Your task to perform on an android device: turn on the 12-hour format for clock Image 0: 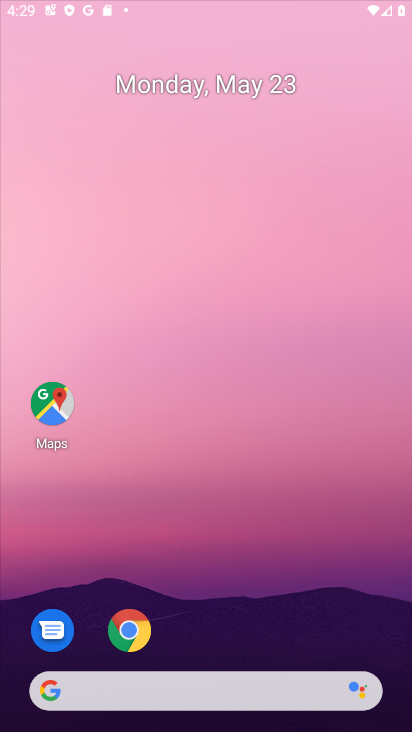
Step 0: press home button
Your task to perform on an android device: turn on the 12-hour format for clock Image 1: 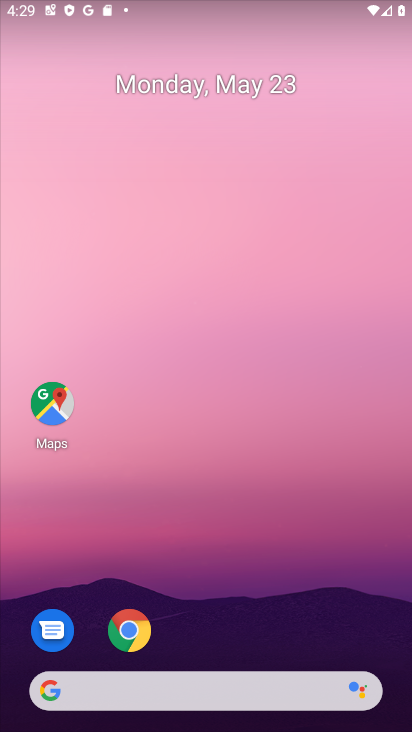
Step 1: drag from (213, 658) to (283, 98)
Your task to perform on an android device: turn on the 12-hour format for clock Image 2: 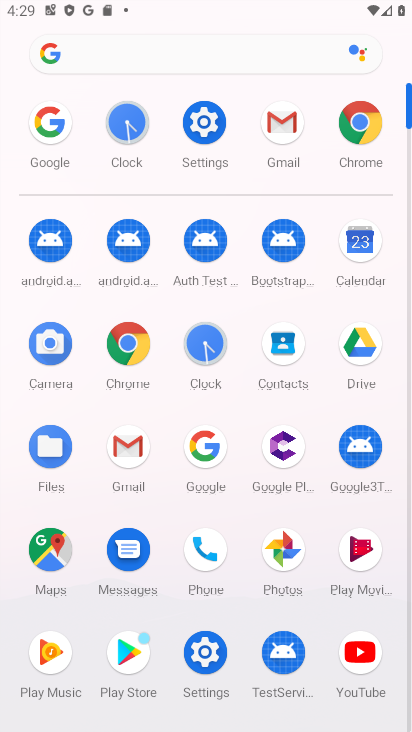
Step 2: click (202, 340)
Your task to perform on an android device: turn on the 12-hour format for clock Image 3: 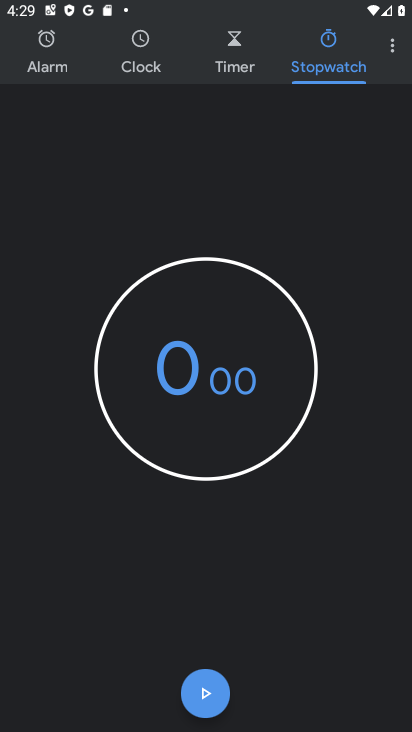
Step 3: click (396, 53)
Your task to perform on an android device: turn on the 12-hour format for clock Image 4: 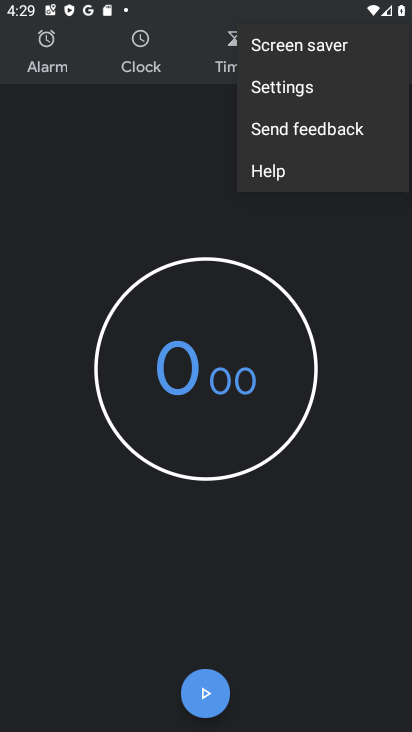
Step 4: click (326, 88)
Your task to perform on an android device: turn on the 12-hour format for clock Image 5: 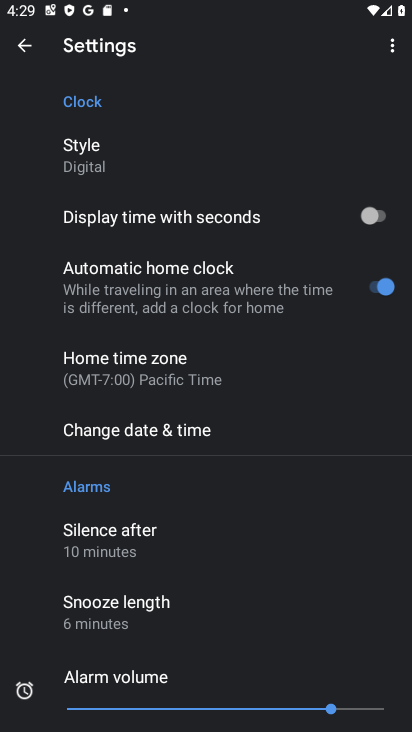
Step 5: click (240, 427)
Your task to perform on an android device: turn on the 12-hour format for clock Image 6: 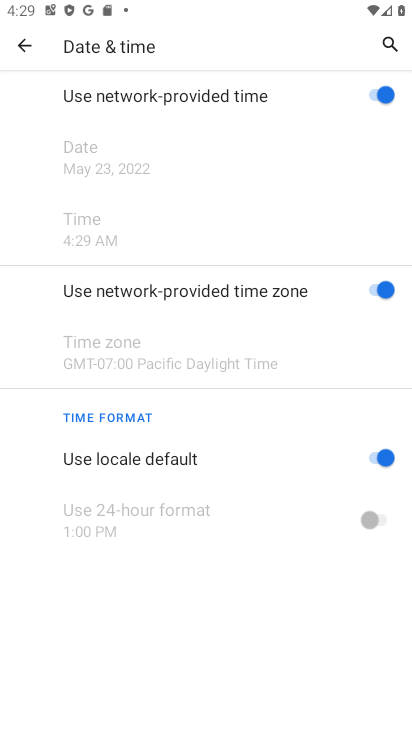
Step 6: task complete